Your task to perform on an android device: Open Google Maps Image 0: 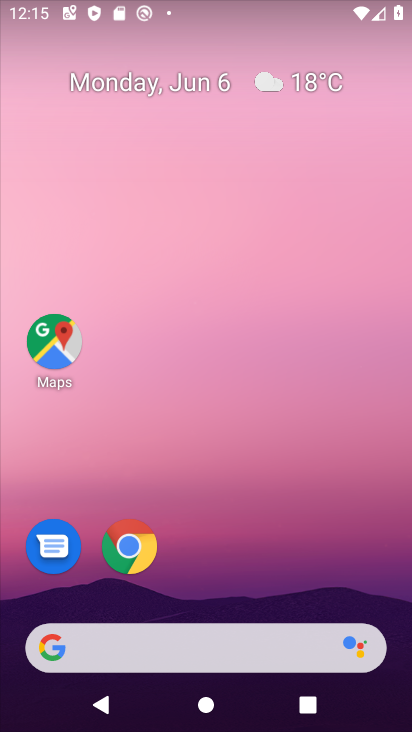
Step 0: click (46, 331)
Your task to perform on an android device: Open Google Maps Image 1: 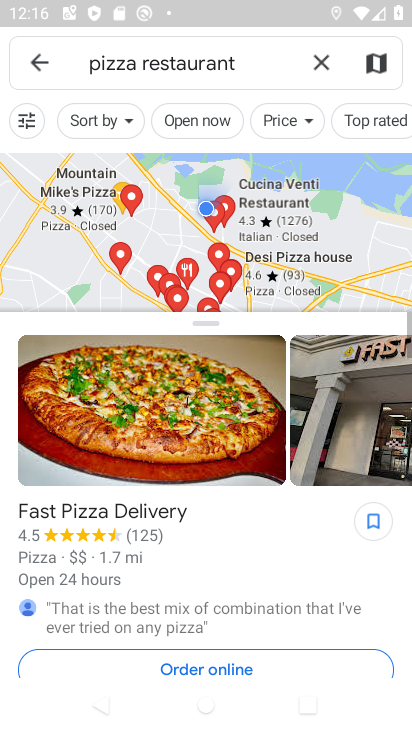
Step 1: click (324, 57)
Your task to perform on an android device: Open Google Maps Image 2: 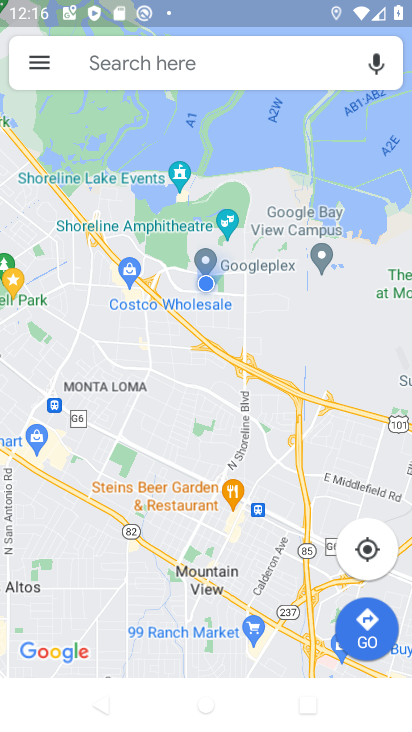
Step 2: task complete